Your task to perform on an android device: delete browsing data in the chrome app Image 0: 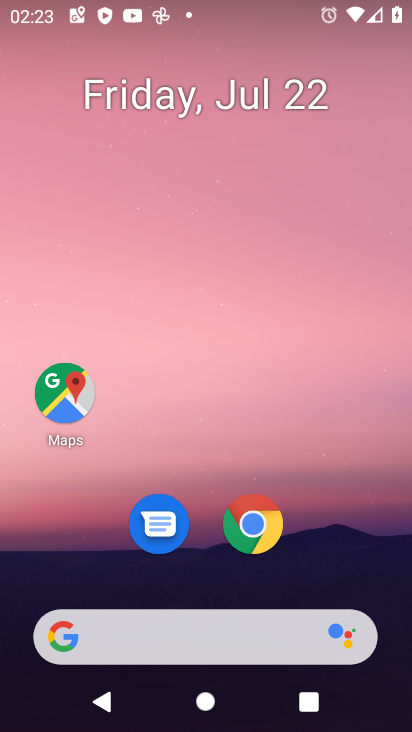
Step 0: press home button
Your task to perform on an android device: delete browsing data in the chrome app Image 1: 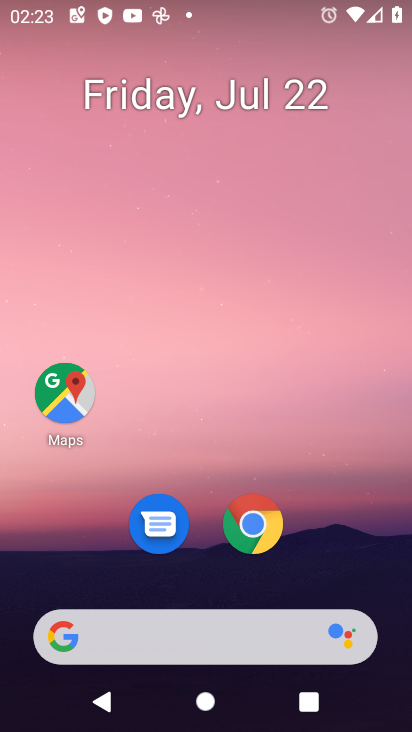
Step 1: click (250, 518)
Your task to perform on an android device: delete browsing data in the chrome app Image 2: 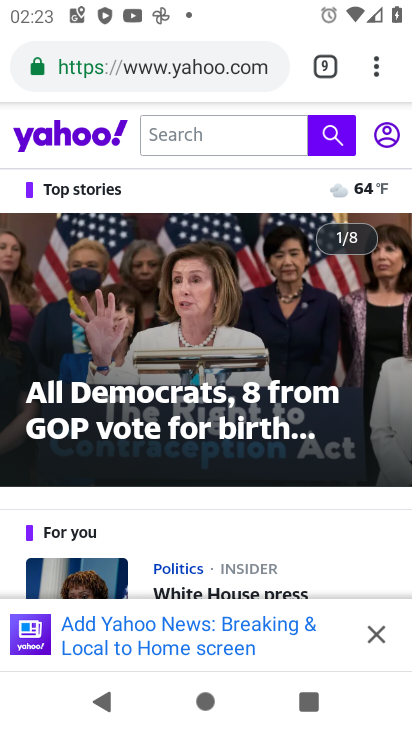
Step 2: drag from (370, 66) to (235, 527)
Your task to perform on an android device: delete browsing data in the chrome app Image 3: 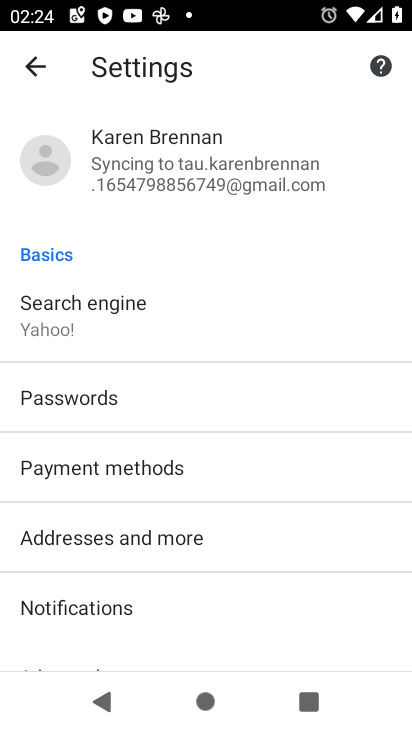
Step 3: drag from (172, 604) to (255, 395)
Your task to perform on an android device: delete browsing data in the chrome app Image 4: 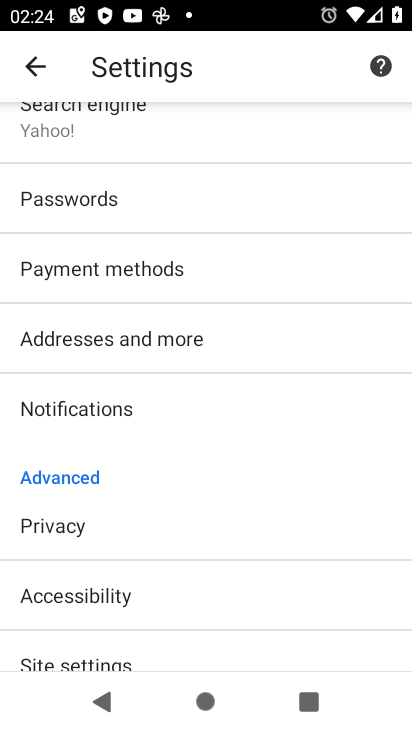
Step 4: click (90, 515)
Your task to perform on an android device: delete browsing data in the chrome app Image 5: 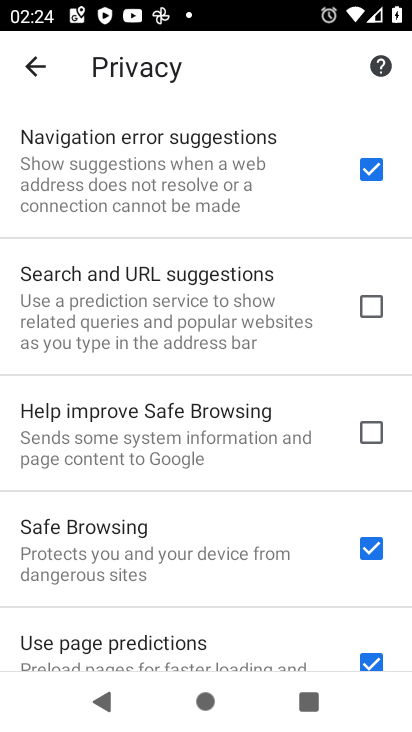
Step 5: drag from (143, 609) to (313, 139)
Your task to perform on an android device: delete browsing data in the chrome app Image 6: 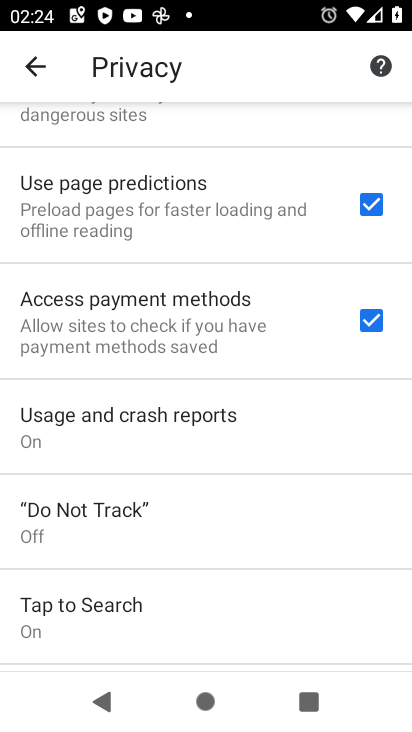
Step 6: drag from (170, 596) to (333, 126)
Your task to perform on an android device: delete browsing data in the chrome app Image 7: 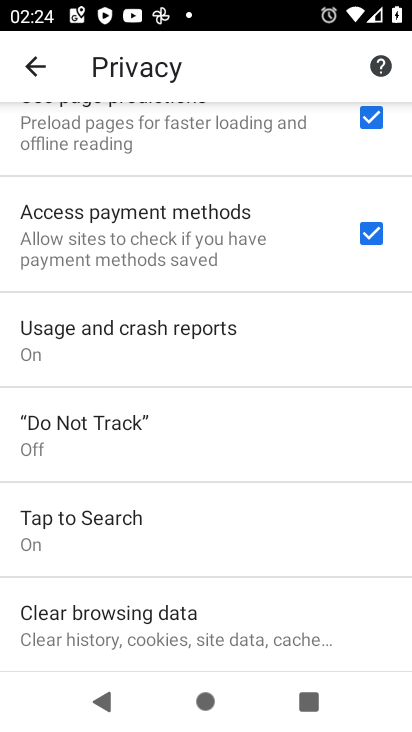
Step 7: click (166, 626)
Your task to perform on an android device: delete browsing data in the chrome app Image 8: 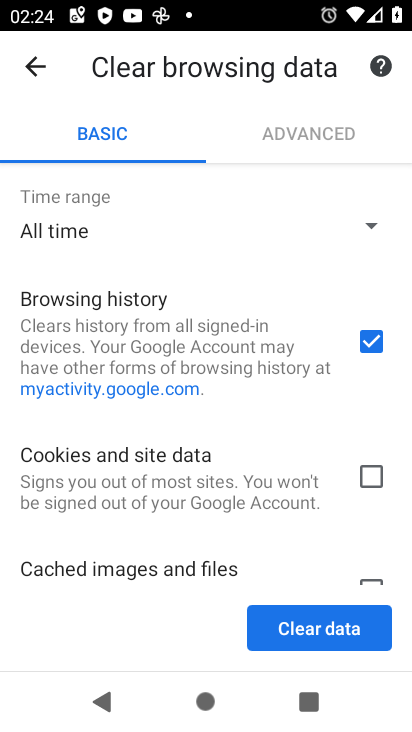
Step 8: click (310, 633)
Your task to perform on an android device: delete browsing data in the chrome app Image 9: 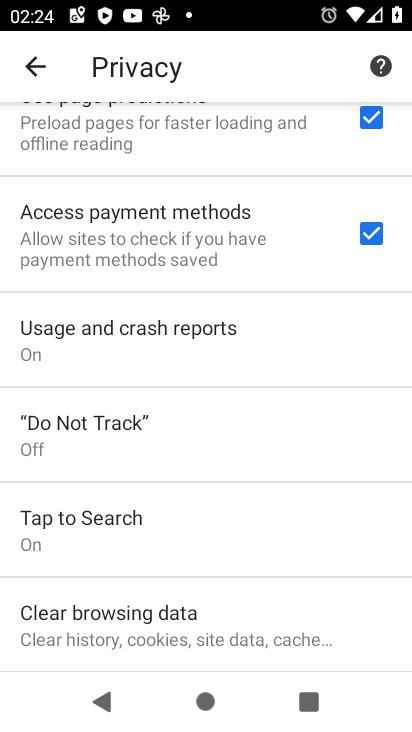
Step 9: task complete